Your task to perform on an android device: open the mobile data screen to see how much data has been used Image 0: 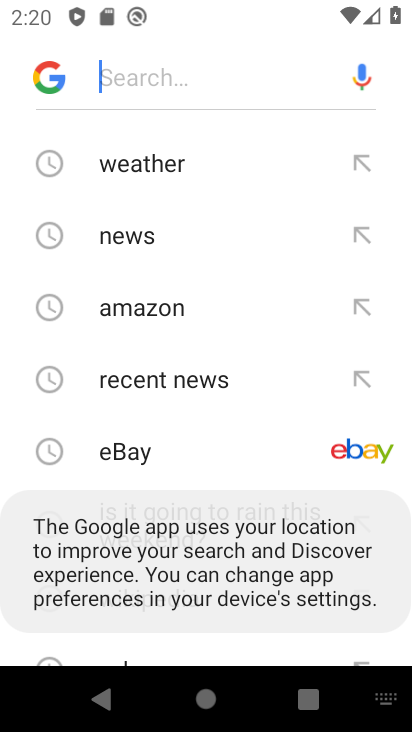
Step 0: press back button
Your task to perform on an android device: open the mobile data screen to see how much data has been used Image 1: 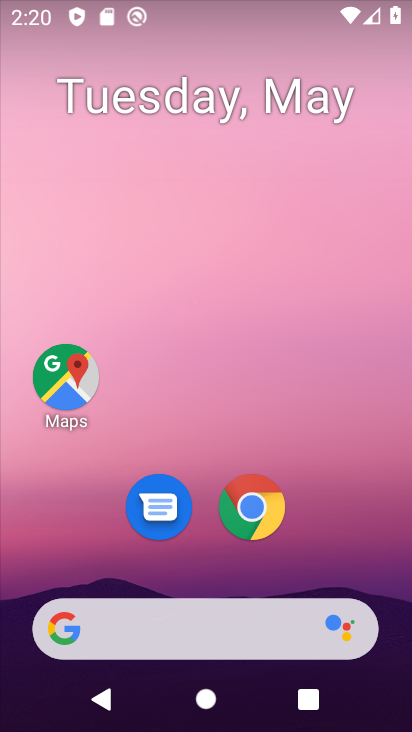
Step 1: drag from (65, 598) to (184, 63)
Your task to perform on an android device: open the mobile data screen to see how much data has been used Image 2: 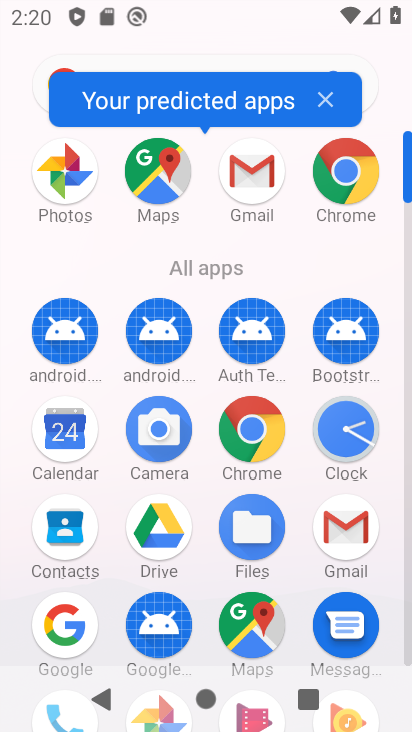
Step 2: drag from (122, 621) to (238, 326)
Your task to perform on an android device: open the mobile data screen to see how much data has been used Image 3: 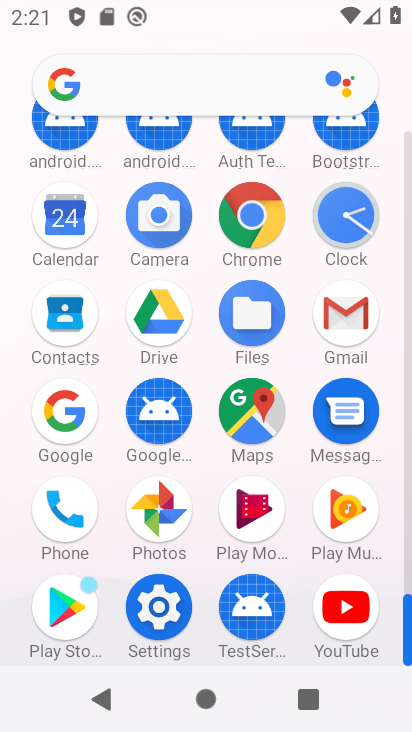
Step 3: click (161, 609)
Your task to perform on an android device: open the mobile data screen to see how much data has been used Image 4: 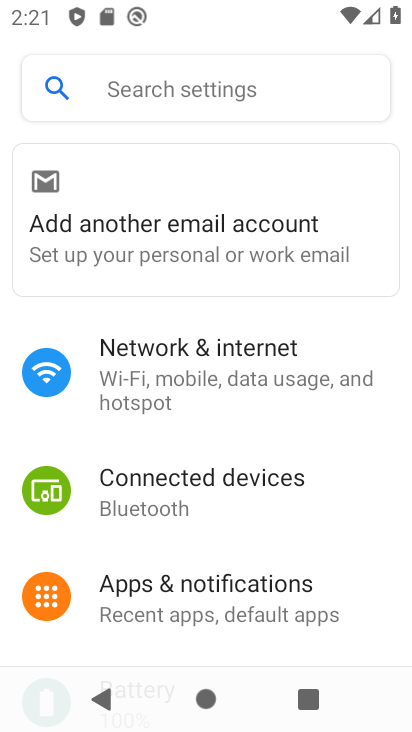
Step 4: click (219, 384)
Your task to perform on an android device: open the mobile data screen to see how much data has been used Image 5: 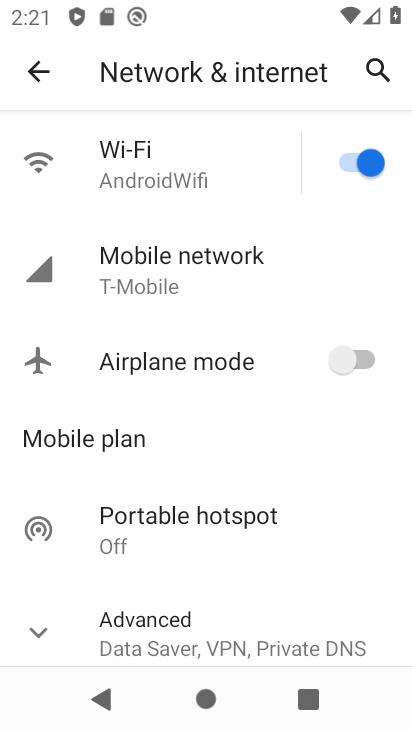
Step 5: click (206, 275)
Your task to perform on an android device: open the mobile data screen to see how much data has been used Image 6: 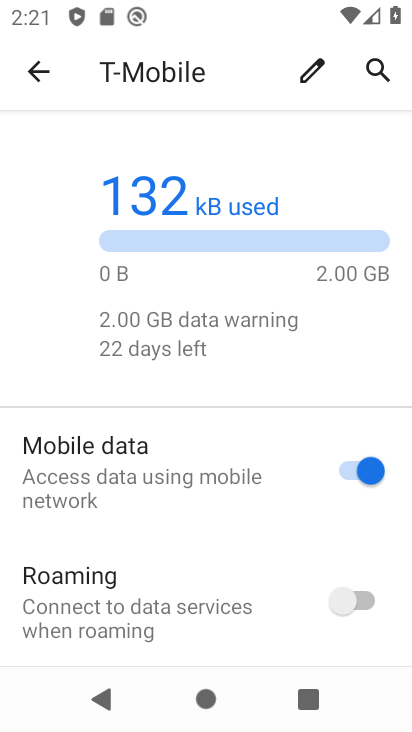
Step 6: task complete